Your task to perform on an android device: turn on translation in the chrome app Image 0: 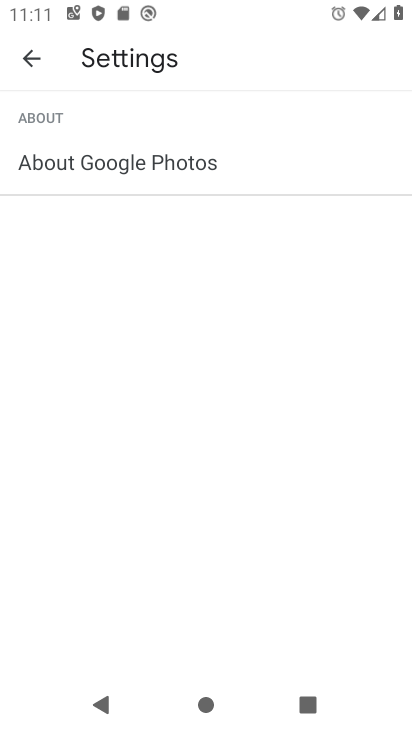
Step 0: click (38, 60)
Your task to perform on an android device: turn on translation in the chrome app Image 1: 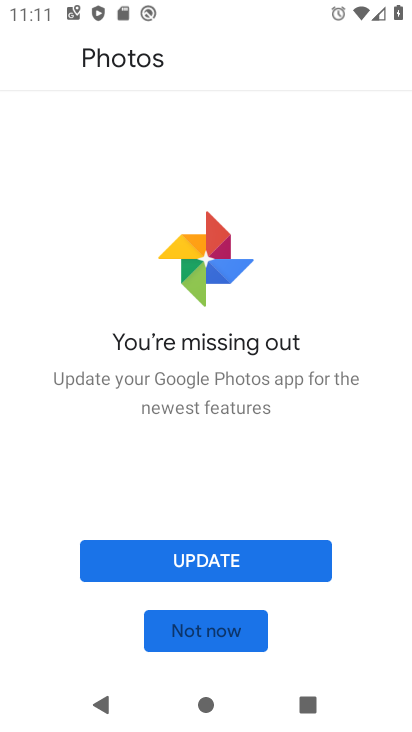
Step 1: click (204, 638)
Your task to perform on an android device: turn on translation in the chrome app Image 2: 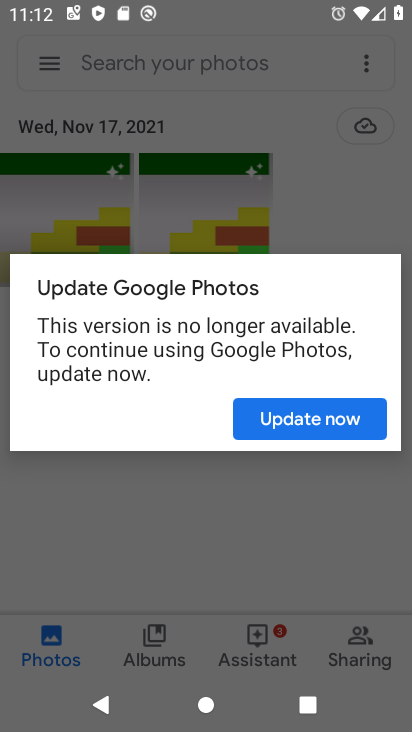
Step 2: press back button
Your task to perform on an android device: turn on translation in the chrome app Image 3: 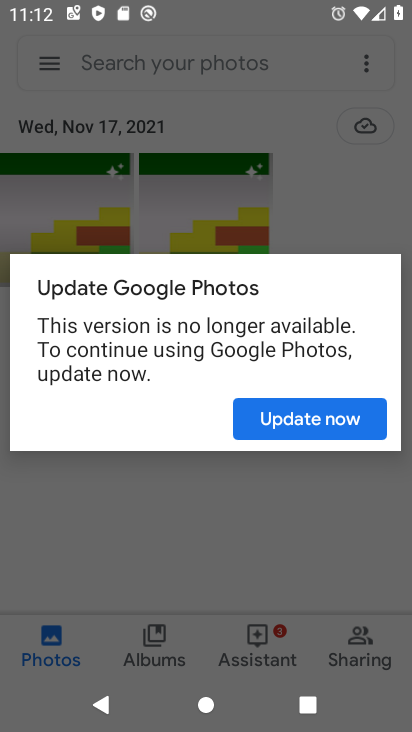
Step 3: press back button
Your task to perform on an android device: turn on translation in the chrome app Image 4: 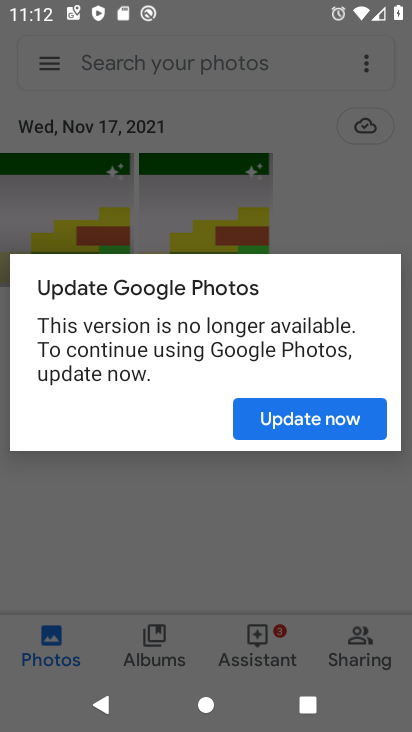
Step 4: press back button
Your task to perform on an android device: turn on translation in the chrome app Image 5: 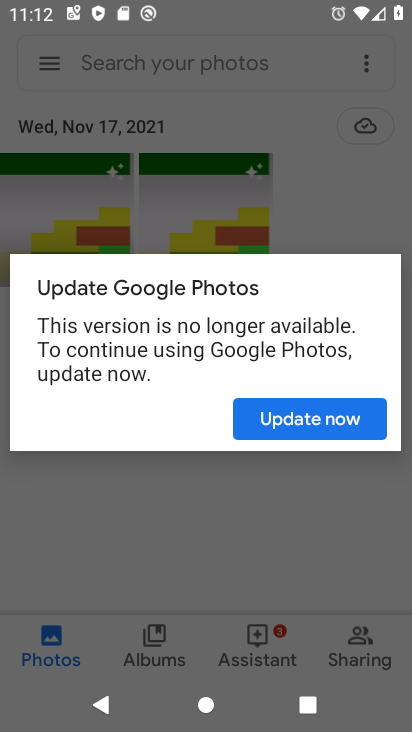
Step 5: press back button
Your task to perform on an android device: turn on translation in the chrome app Image 6: 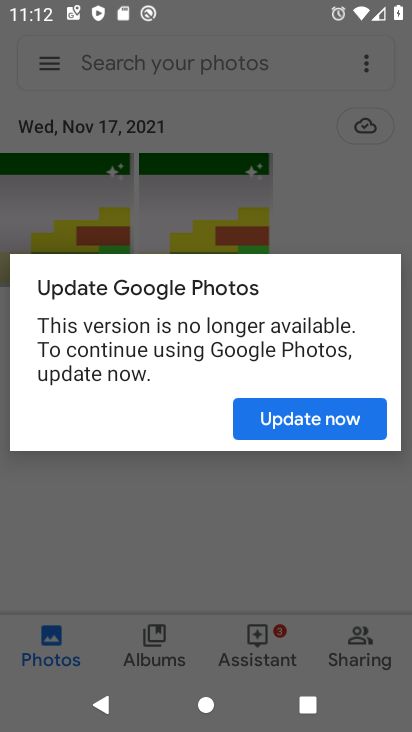
Step 6: press back button
Your task to perform on an android device: turn on translation in the chrome app Image 7: 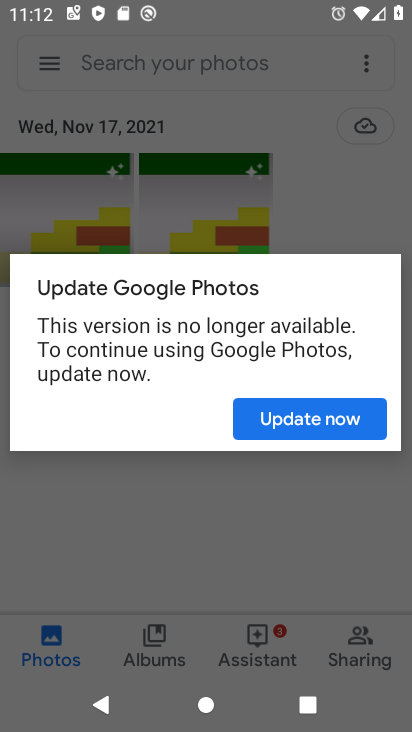
Step 7: press home button
Your task to perform on an android device: turn on translation in the chrome app Image 8: 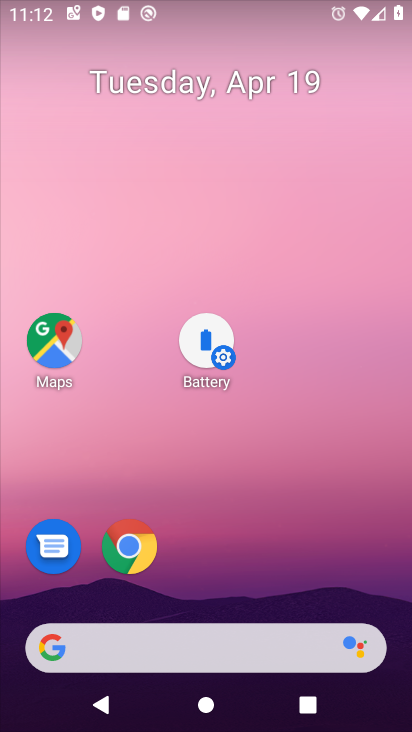
Step 8: click (130, 547)
Your task to perform on an android device: turn on translation in the chrome app Image 9: 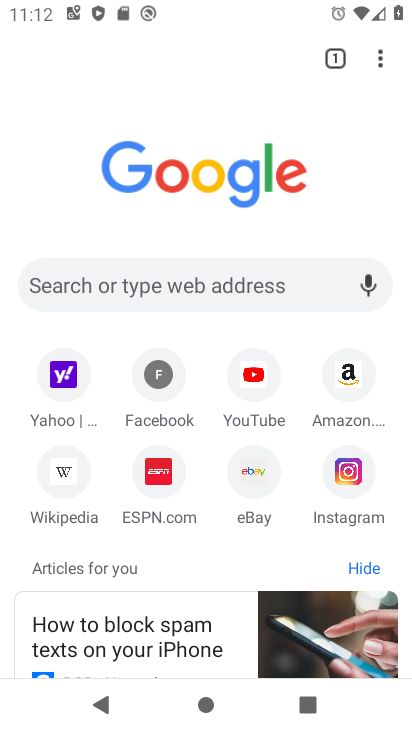
Step 9: click (389, 45)
Your task to perform on an android device: turn on translation in the chrome app Image 10: 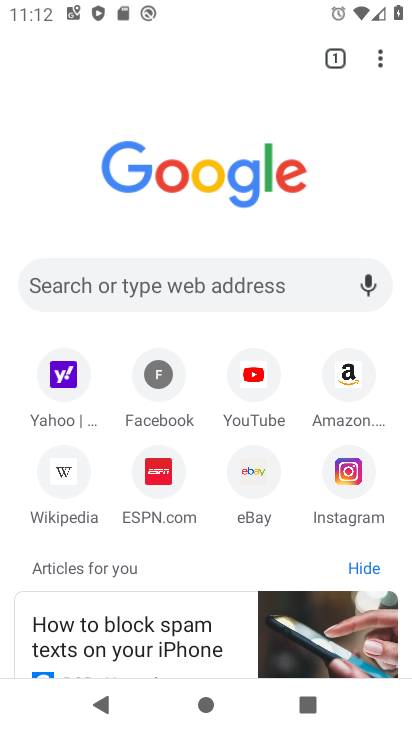
Step 10: click (379, 61)
Your task to perform on an android device: turn on translation in the chrome app Image 11: 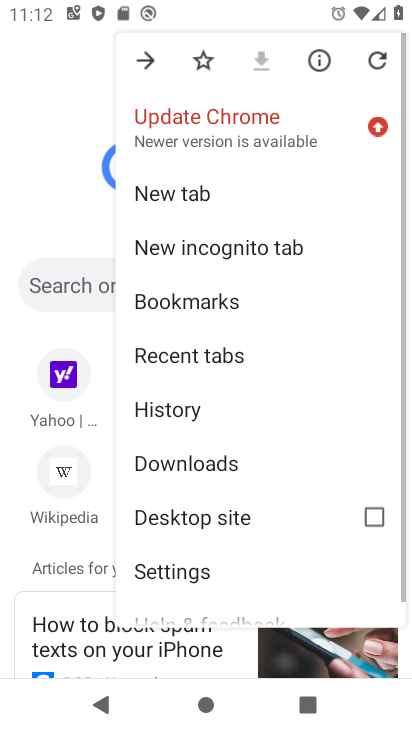
Step 11: drag from (231, 541) to (280, 199)
Your task to perform on an android device: turn on translation in the chrome app Image 12: 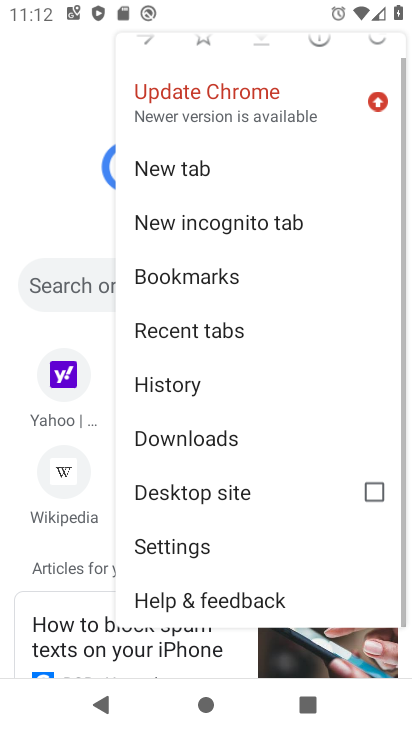
Step 12: click (199, 546)
Your task to perform on an android device: turn on translation in the chrome app Image 13: 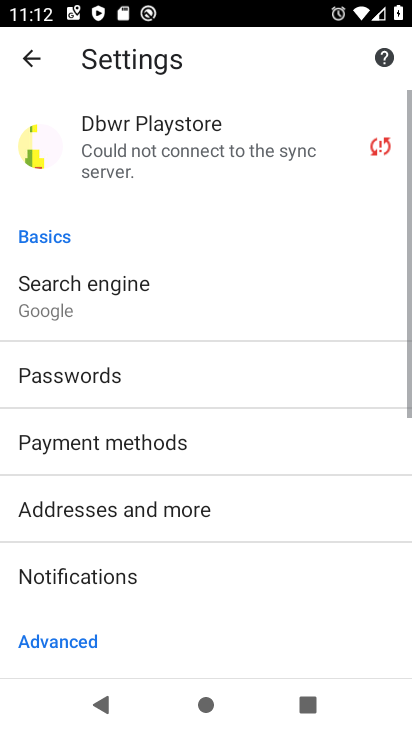
Step 13: drag from (155, 561) to (279, 134)
Your task to perform on an android device: turn on translation in the chrome app Image 14: 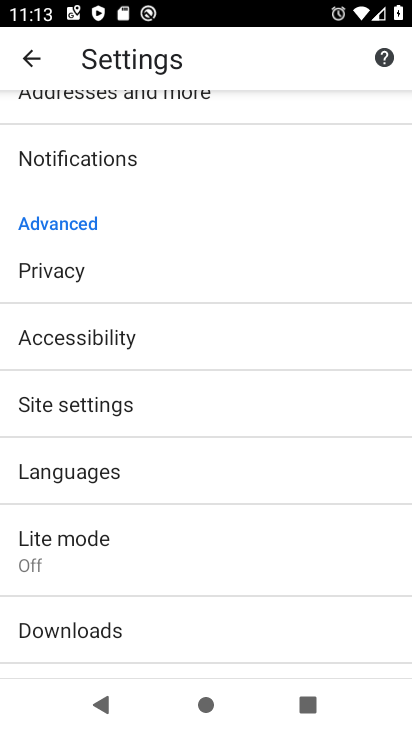
Step 14: click (69, 469)
Your task to perform on an android device: turn on translation in the chrome app Image 15: 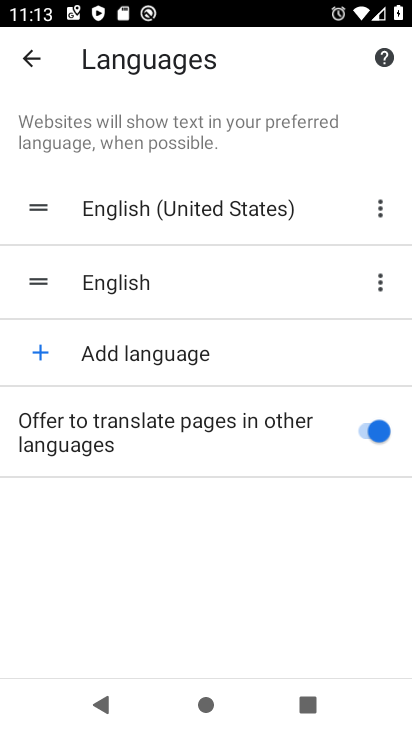
Step 15: task complete